Your task to perform on an android device: Open the phone app and click the voicemail tab. Image 0: 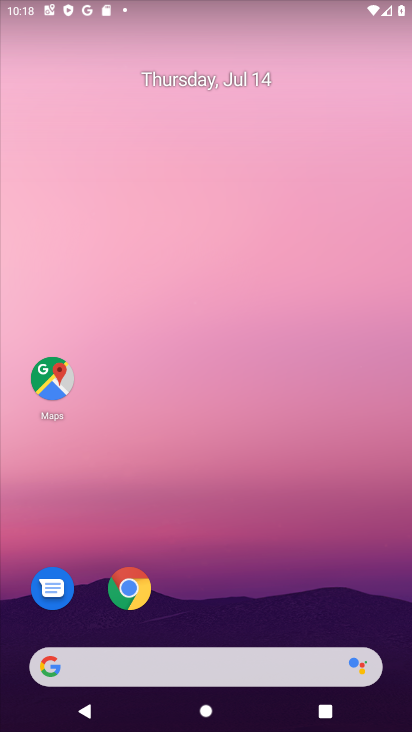
Step 0: drag from (122, 670) to (329, 30)
Your task to perform on an android device: Open the phone app and click the voicemail tab. Image 1: 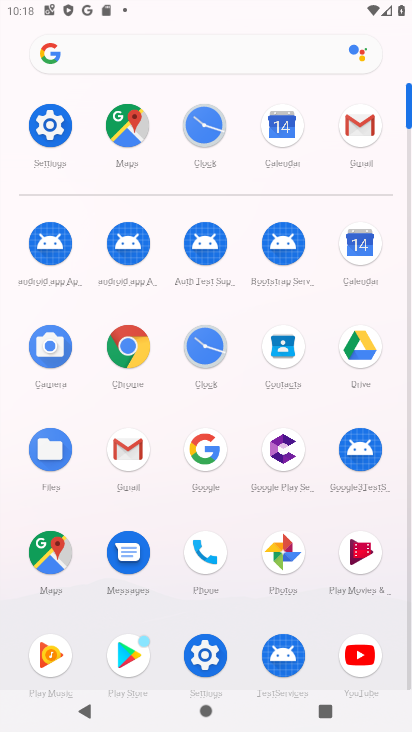
Step 1: click (207, 556)
Your task to perform on an android device: Open the phone app and click the voicemail tab. Image 2: 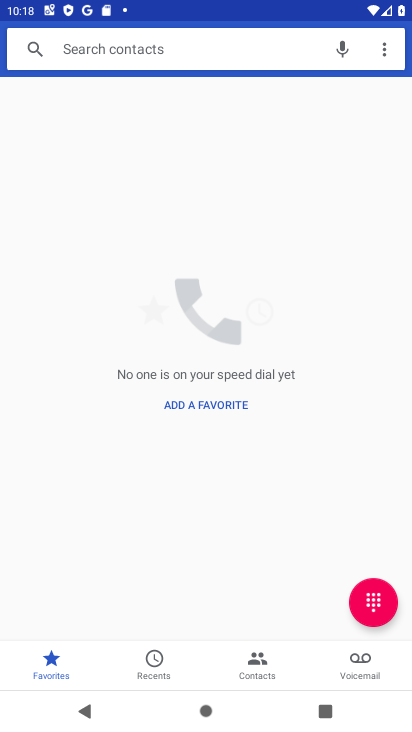
Step 2: click (359, 666)
Your task to perform on an android device: Open the phone app and click the voicemail tab. Image 3: 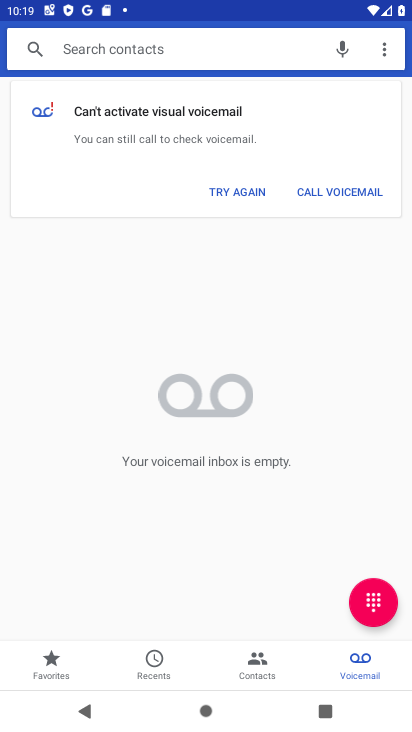
Step 3: task complete